Your task to perform on an android device: turn pop-ups on in chrome Image 0: 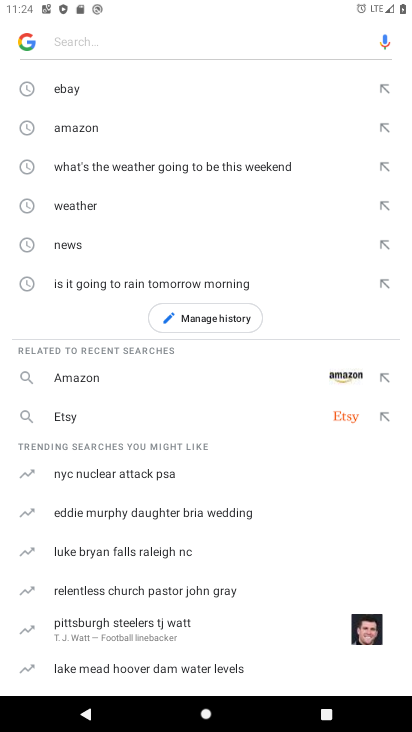
Step 0: press home button
Your task to perform on an android device: turn pop-ups on in chrome Image 1: 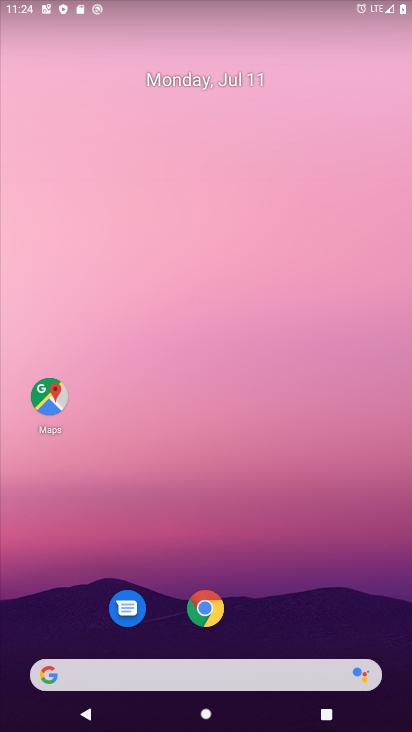
Step 1: click (193, 617)
Your task to perform on an android device: turn pop-ups on in chrome Image 2: 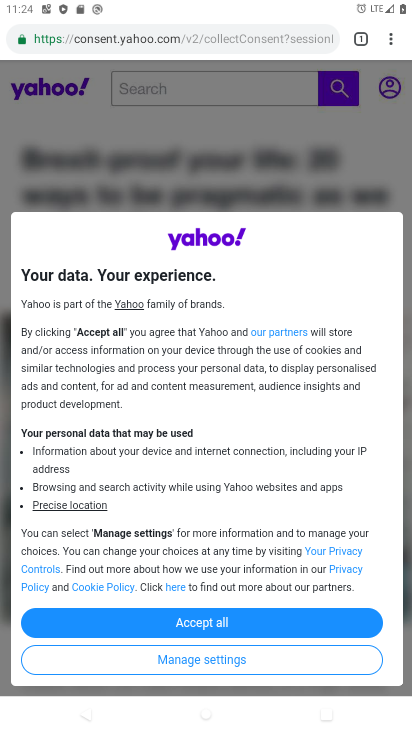
Step 2: click (391, 34)
Your task to perform on an android device: turn pop-ups on in chrome Image 3: 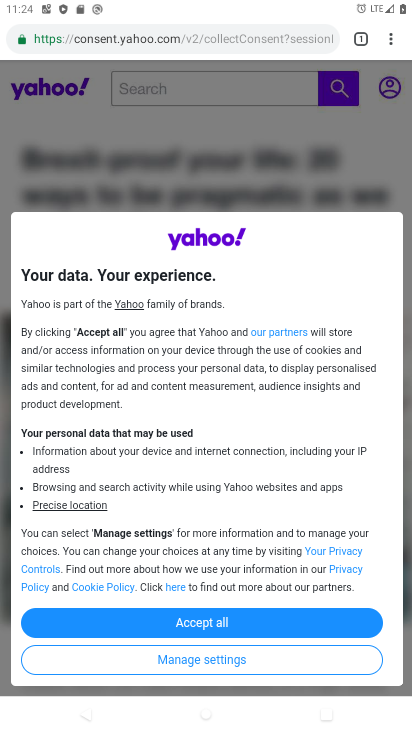
Step 3: click (391, 29)
Your task to perform on an android device: turn pop-ups on in chrome Image 4: 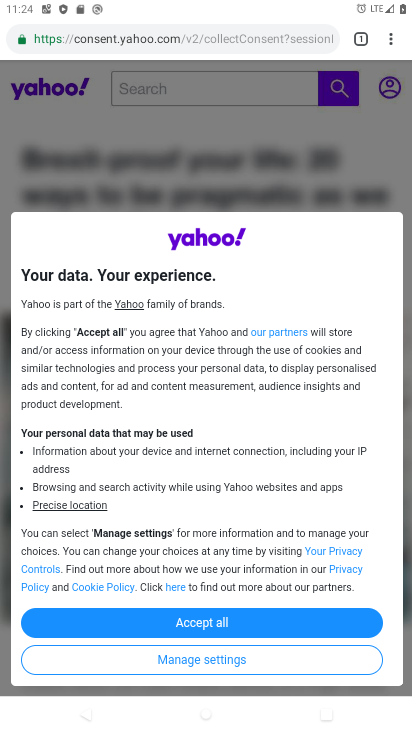
Step 4: click (390, 39)
Your task to perform on an android device: turn pop-ups on in chrome Image 5: 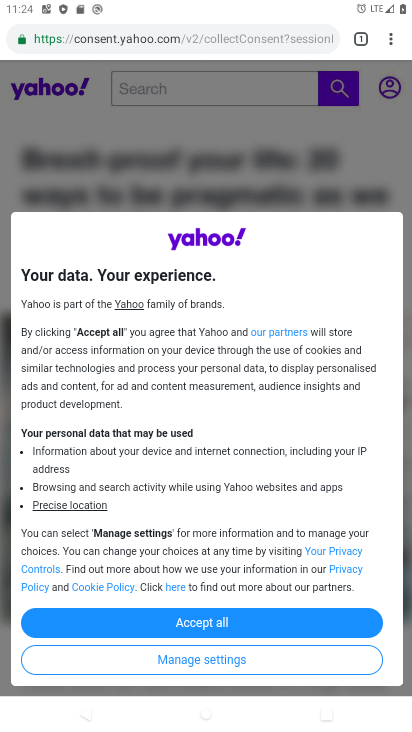
Step 5: click (394, 38)
Your task to perform on an android device: turn pop-ups on in chrome Image 6: 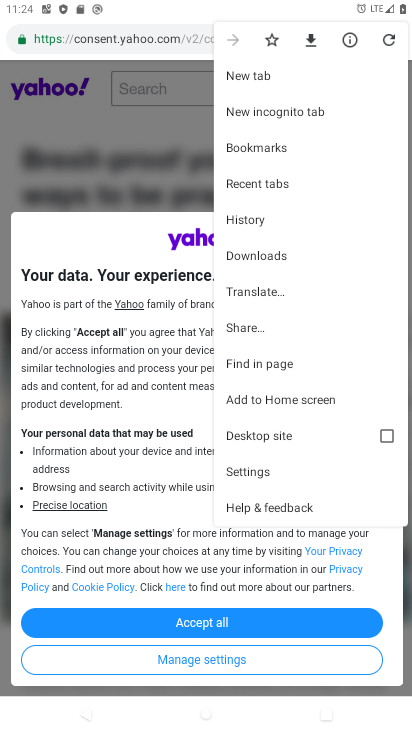
Step 6: click (263, 466)
Your task to perform on an android device: turn pop-ups on in chrome Image 7: 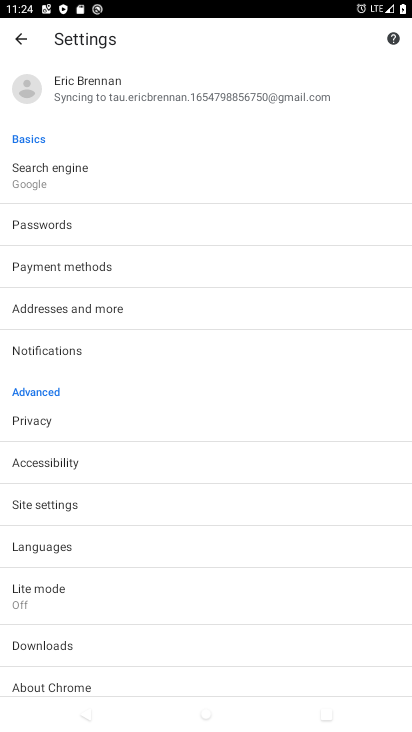
Step 7: click (40, 424)
Your task to perform on an android device: turn pop-ups on in chrome Image 8: 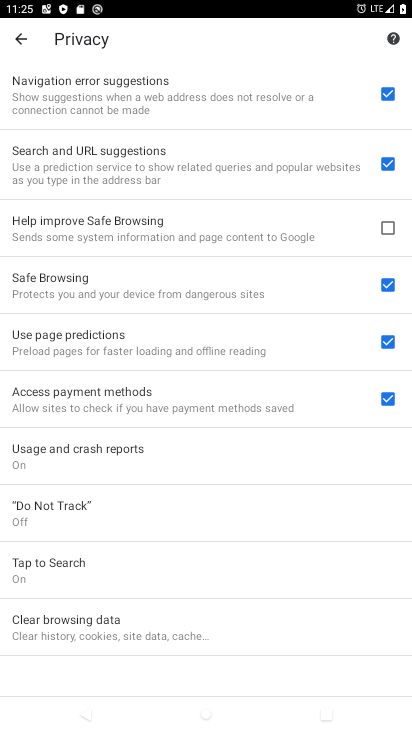
Step 8: click (16, 35)
Your task to perform on an android device: turn pop-ups on in chrome Image 9: 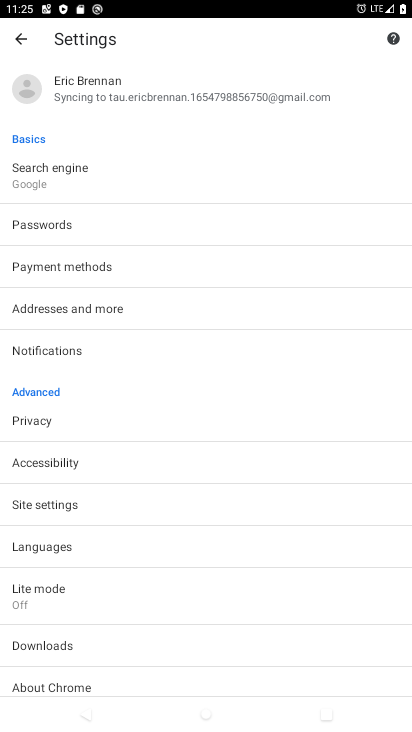
Step 9: click (70, 504)
Your task to perform on an android device: turn pop-ups on in chrome Image 10: 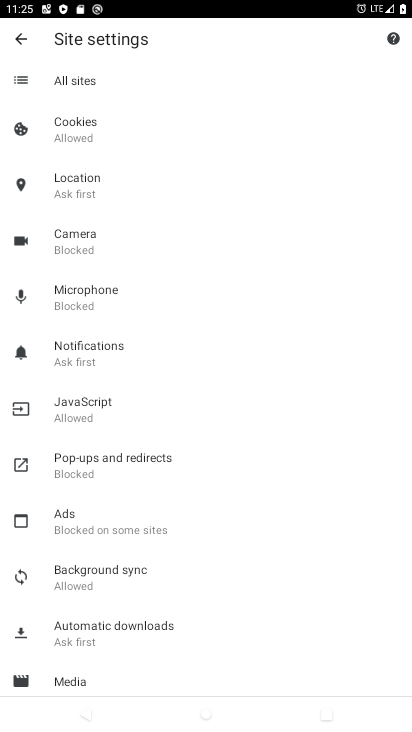
Step 10: click (93, 455)
Your task to perform on an android device: turn pop-ups on in chrome Image 11: 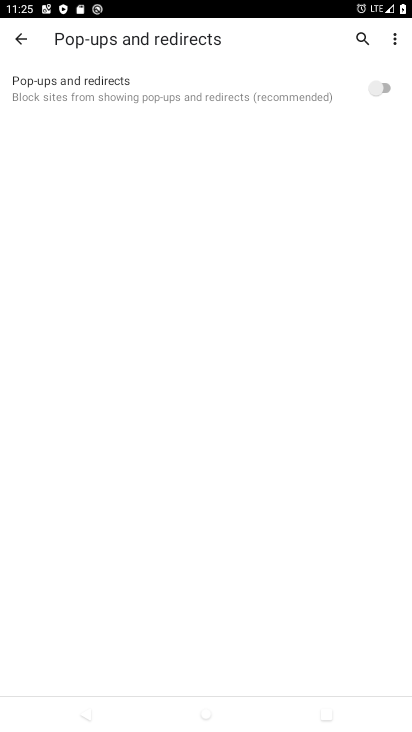
Step 11: click (378, 91)
Your task to perform on an android device: turn pop-ups on in chrome Image 12: 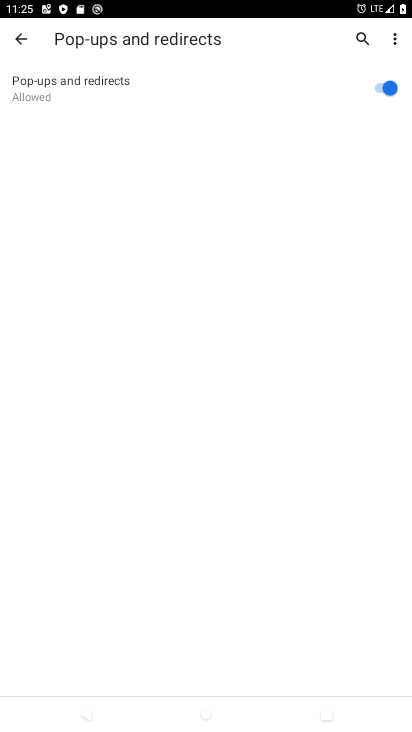
Step 12: task complete